Your task to perform on an android device: Go to privacy settings Image 0: 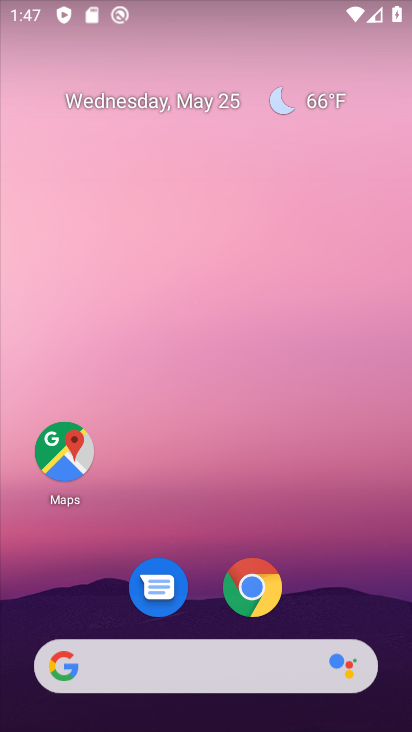
Step 0: drag from (379, 603) to (392, 154)
Your task to perform on an android device: Go to privacy settings Image 1: 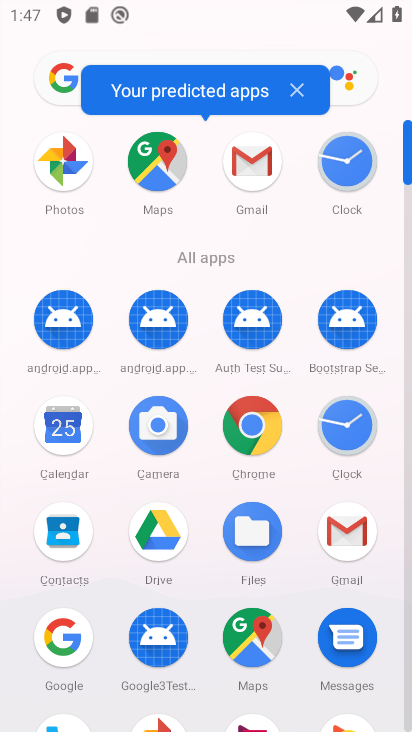
Step 1: drag from (292, 587) to (303, 386)
Your task to perform on an android device: Go to privacy settings Image 2: 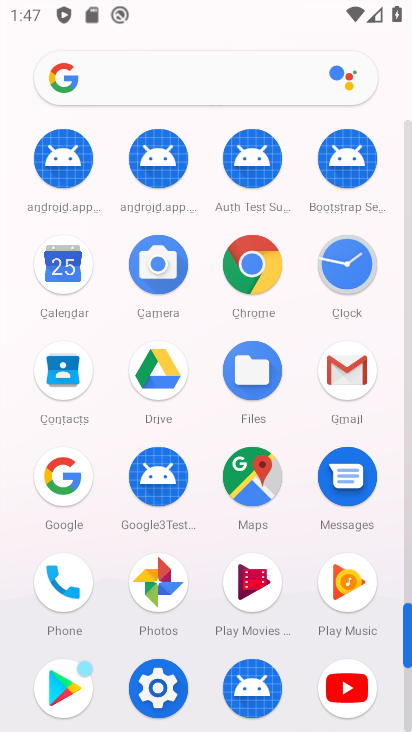
Step 2: drag from (301, 609) to (300, 446)
Your task to perform on an android device: Go to privacy settings Image 3: 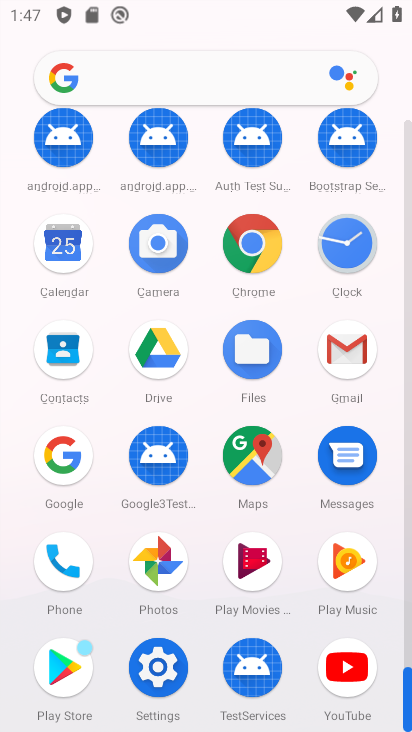
Step 3: click (166, 677)
Your task to perform on an android device: Go to privacy settings Image 4: 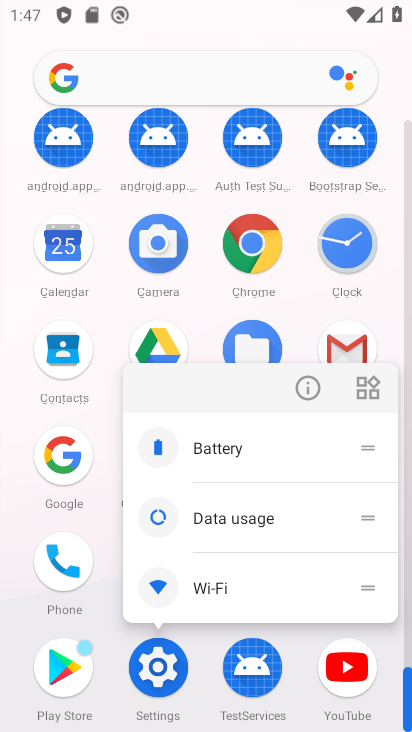
Step 4: click (141, 690)
Your task to perform on an android device: Go to privacy settings Image 5: 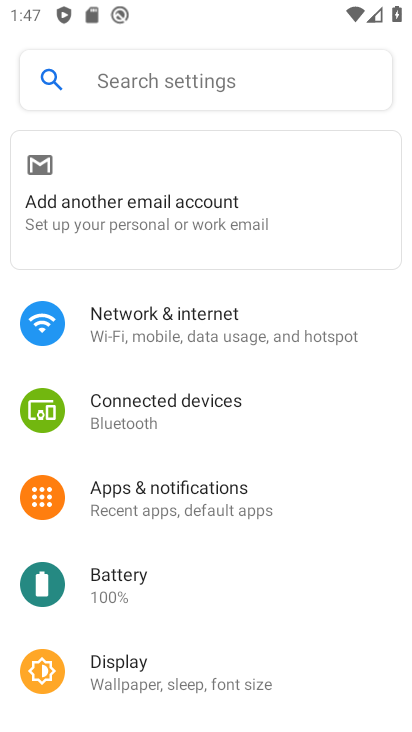
Step 5: drag from (352, 643) to (358, 481)
Your task to perform on an android device: Go to privacy settings Image 6: 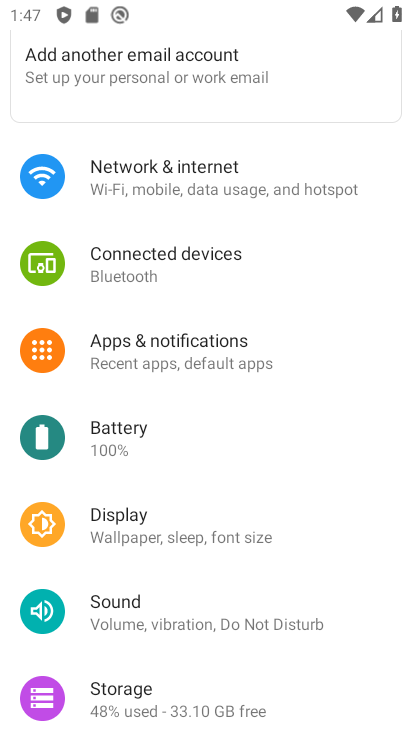
Step 6: drag from (367, 694) to (368, 517)
Your task to perform on an android device: Go to privacy settings Image 7: 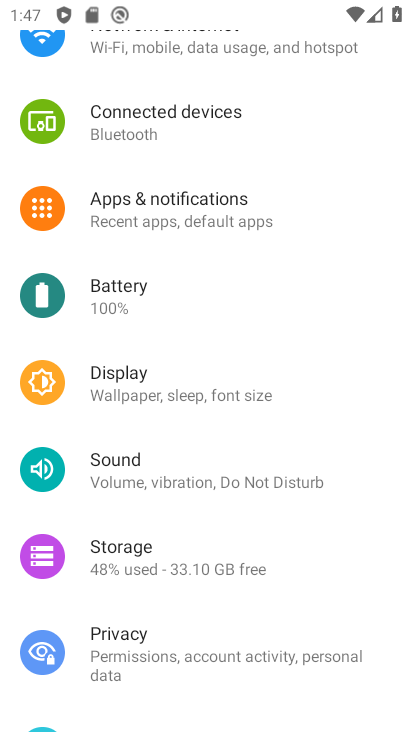
Step 7: drag from (369, 690) to (364, 502)
Your task to perform on an android device: Go to privacy settings Image 8: 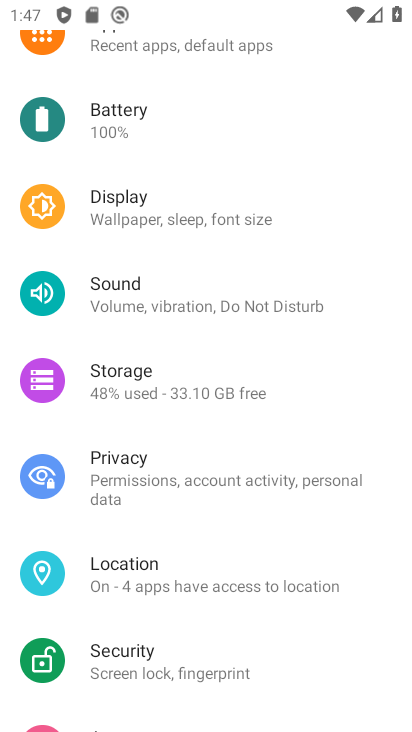
Step 8: drag from (344, 657) to (356, 491)
Your task to perform on an android device: Go to privacy settings Image 9: 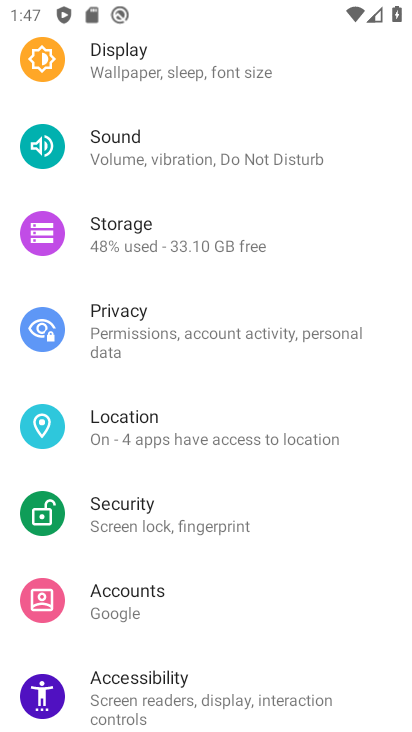
Step 9: drag from (347, 392) to (339, 481)
Your task to perform on an android device: Go to privacy settings Image 10: 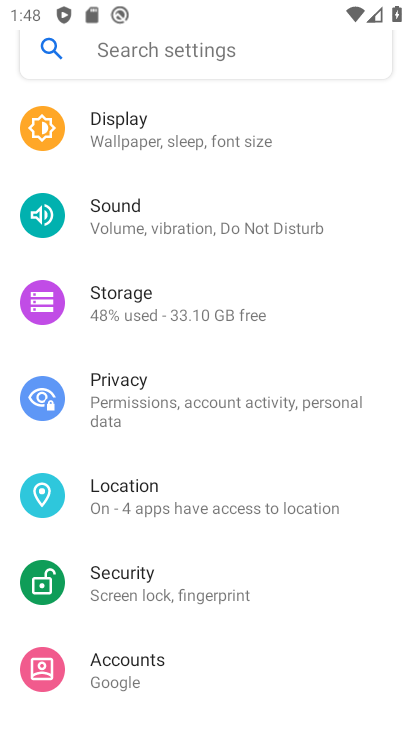
Step 10: click (278, 391)
Your task to perform on an android device: Go to privacy settings Image 11: 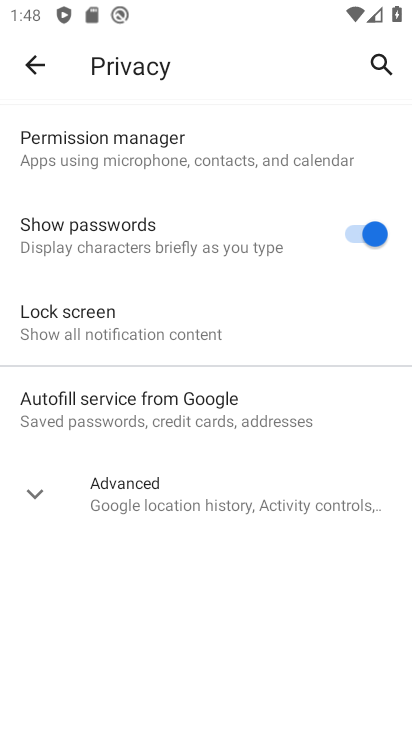
Step 11: task complete